Your task to perform on an android device: What's the weather like in Los Angeles? Image 0: 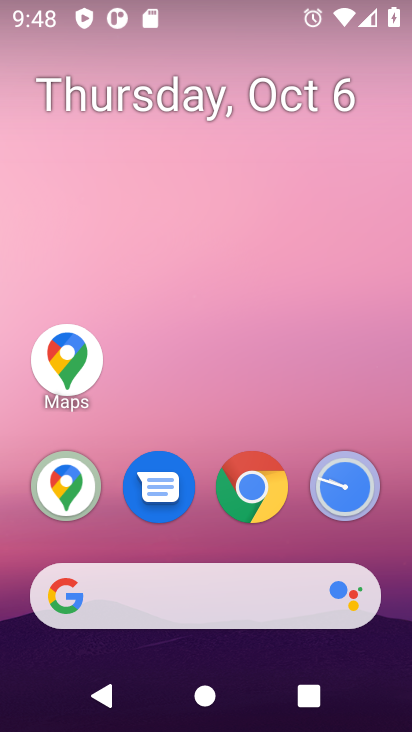
Step 0: drag from (198, 518) to (142, 162)
Your task to perform on an android device: What's the weather like in Los Angeles? Image 1: 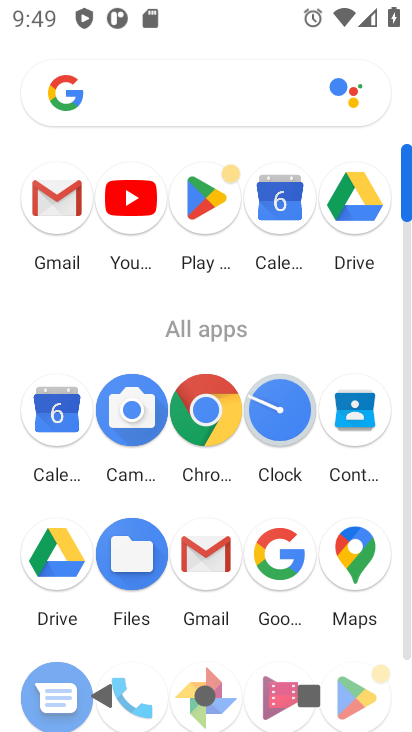
Step 1: click (180, 401)
Your task to perform on an android device: What's the weather like in Los Angeles? Image 2: 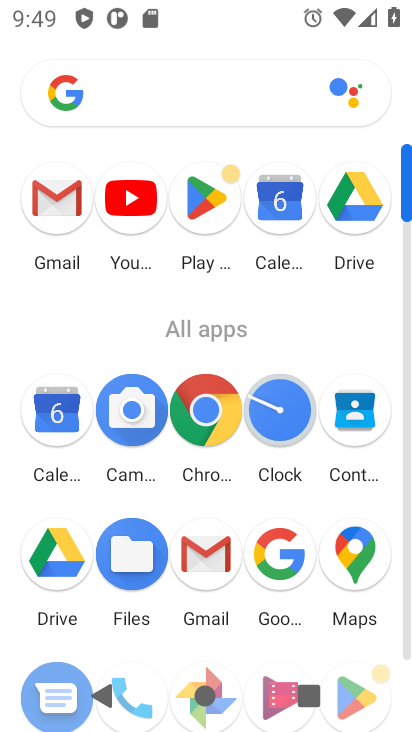
Step 2: click (207, 396)
Your task to perform on an android device: What's the weather like in Los Angeles? Image 3: 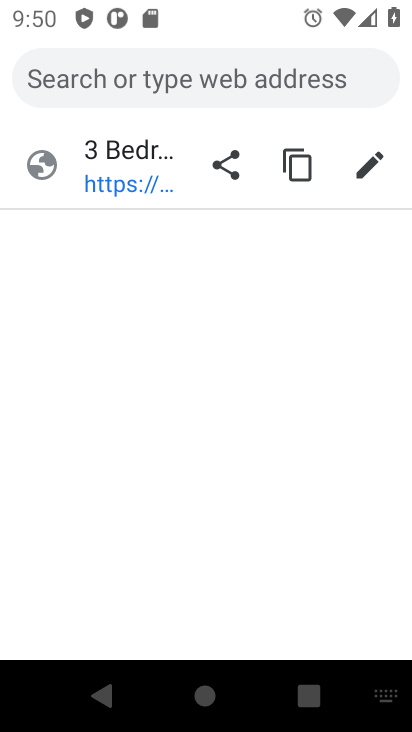
Step 3: click (202, 79)
Your task to perform on an android device: What's the weather like in Los Angeles? Image 4: 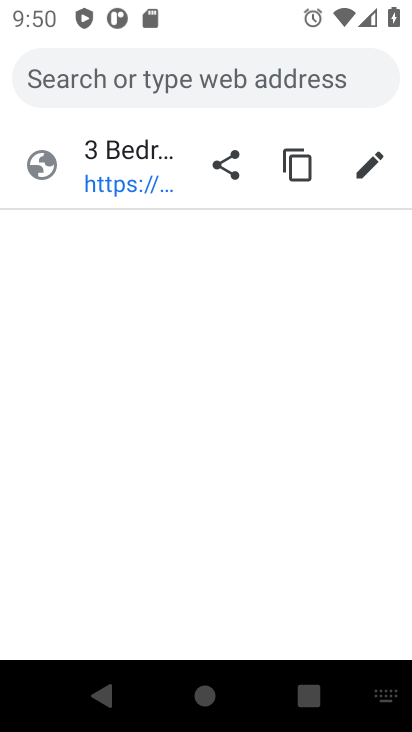
Step 4: type "What's the weather like in Los Angeles?"
Your task to perform on an android device: What's the weather like in Los Angeles? Image 5: 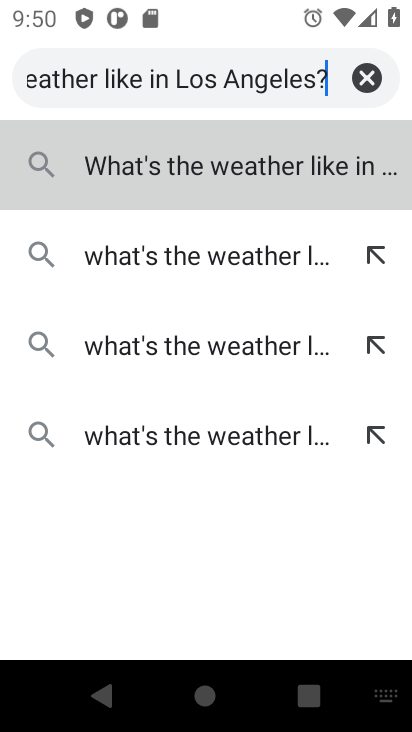
Step 5: press enter
Your task to perform on an android device: What's the weather like in Los Angeles? Image 6: 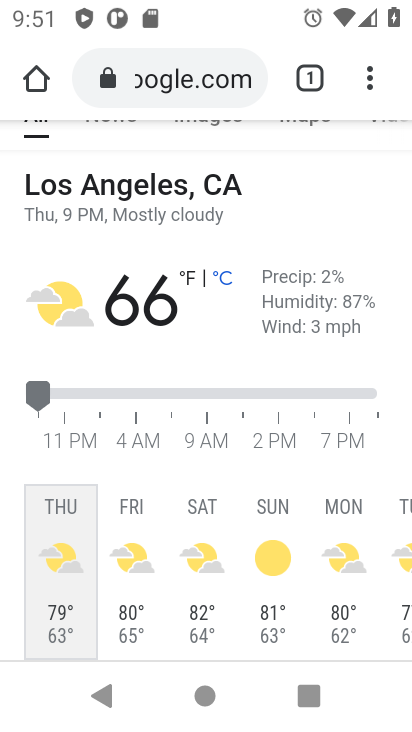
Step 6: task complete